Your task to perform on an android device: add a contact Image 0: 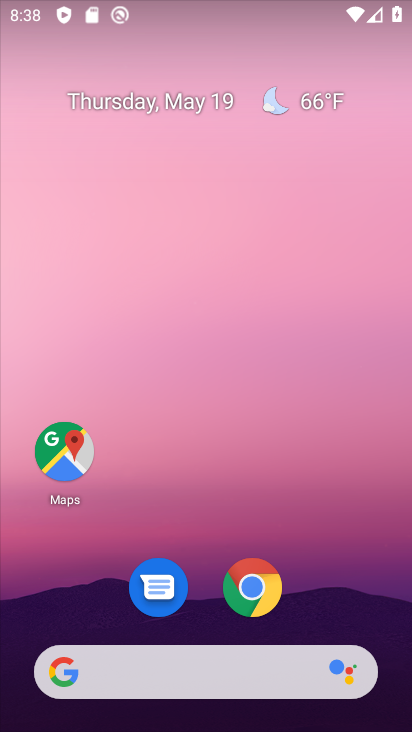
Step 0: drag from (277, 684) to (252, 423)
Your task to perform on an android device: add a contact Image 1: 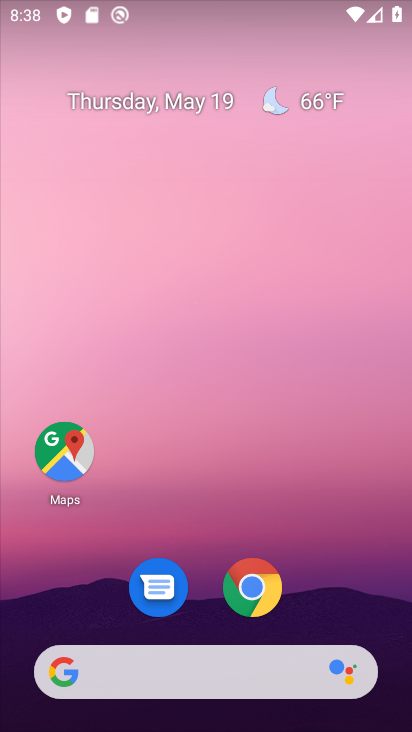
Step 1: drag from (278, 657) to (135, 106)
Your task to perform on an android device: add a contact Image 2: 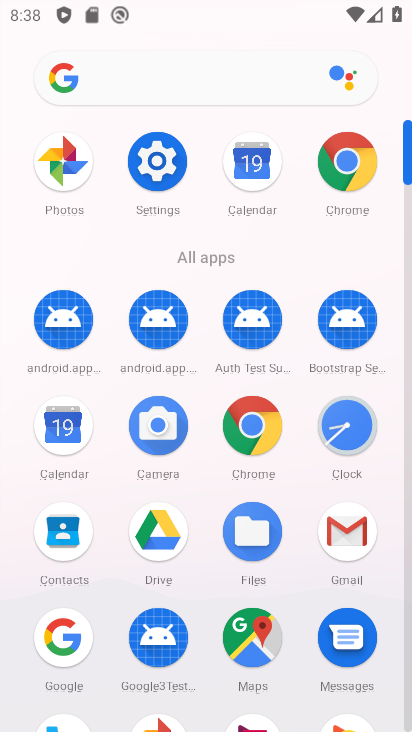
Step 2: click (147, 365)
Your task to perform on an android device: add a contact Image 3: 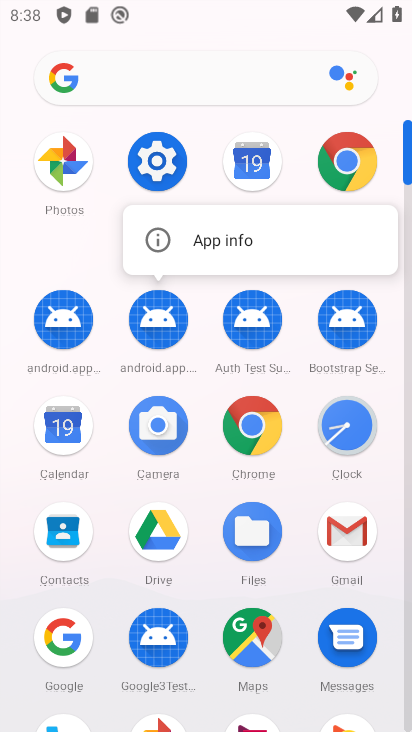
Step 3: click (65, 720)
Your task to perform on an android device: add a contact Image 4: 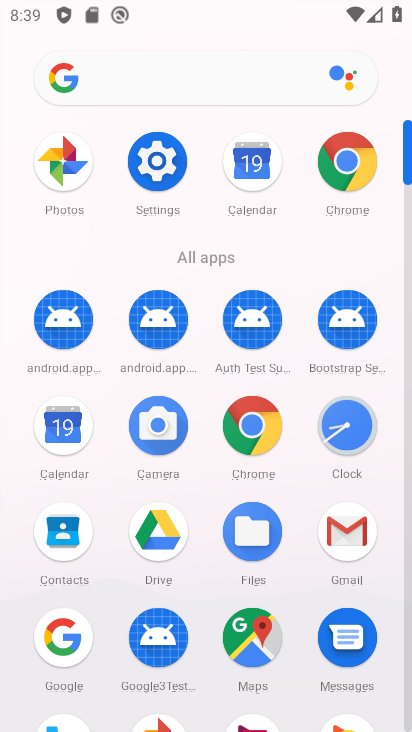
Step 4: drag from (116, 483) to (107, 283)
Your task to perform on an android device: add a contact Image 5: 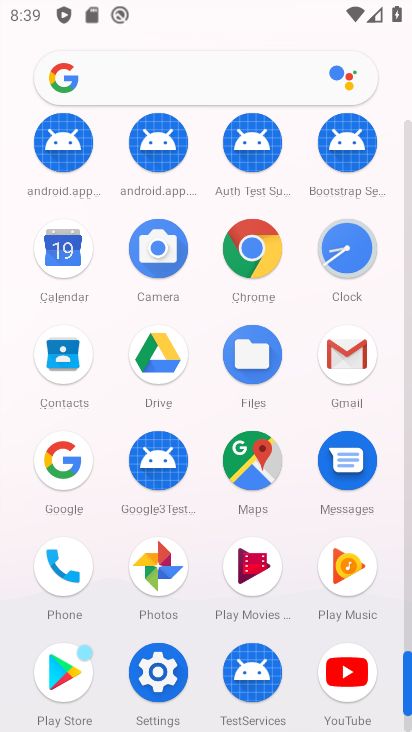
Step 5: click (76, 562)
Your task to perform on an android device: add a contact Image 6: 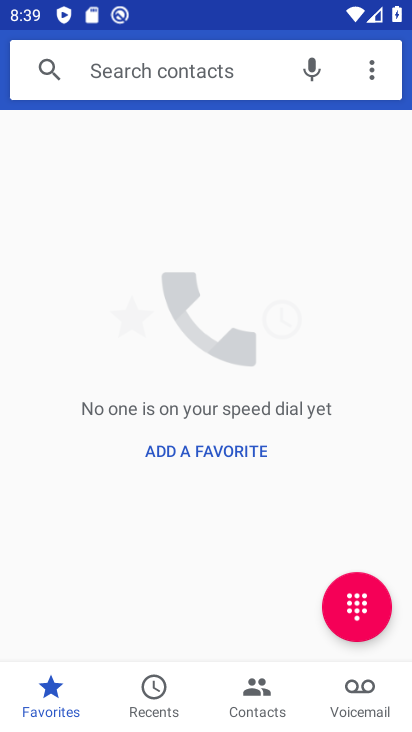
Step 6: click (262, 681)
Your task to perform on an android device: add a contact Image 7: 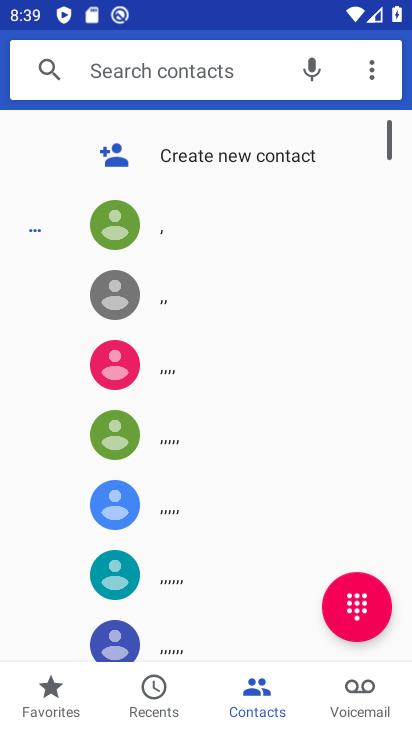
Step 7: click (232, 153)
Your task to perform on an android device: add a contact Image 8: 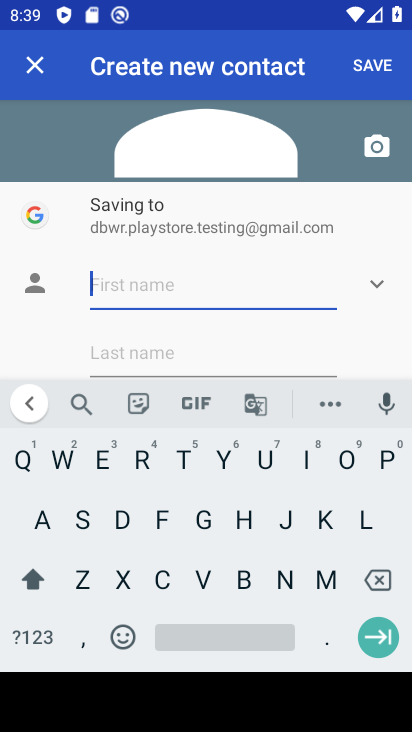
Step 8: click (69, 472)
Your task to perform on an android device: add a contact Image 9: 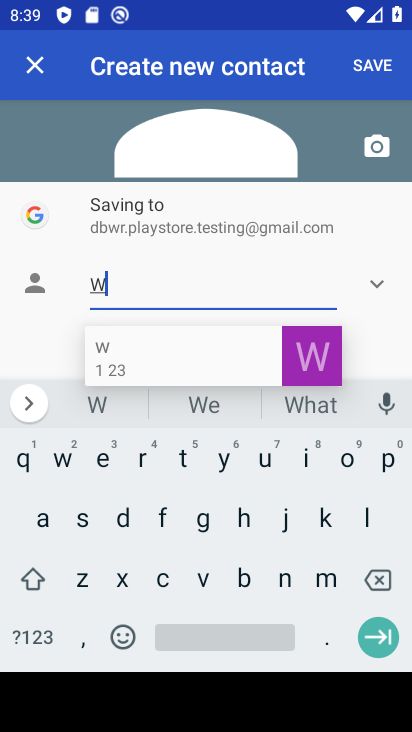
Step 9: click (17, 474)
Your task to perform on an android device: add a contact Image 10: 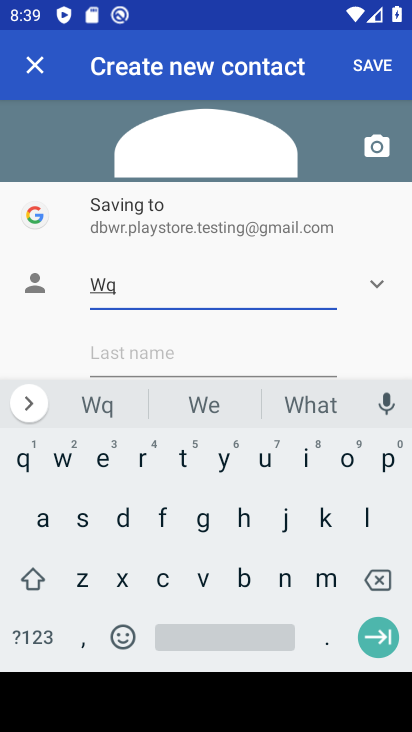
Step 10: drag from (166, 327) to (166, 178)
Your task to perform on an android device: add a contact Image 11: 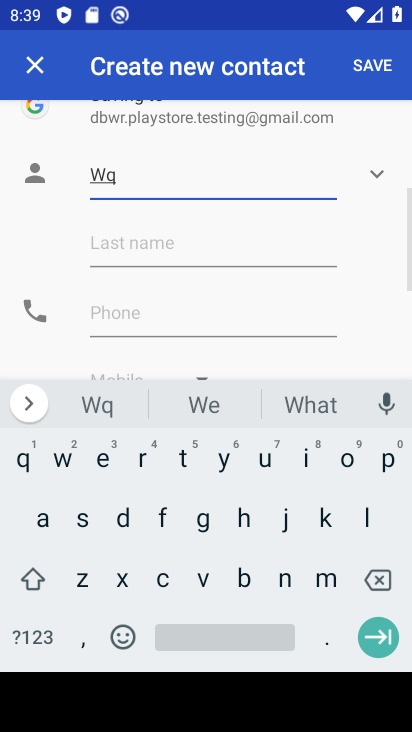
Step 11: click (109, 330)
Your task to perform on an android device: add a contact Image 12: 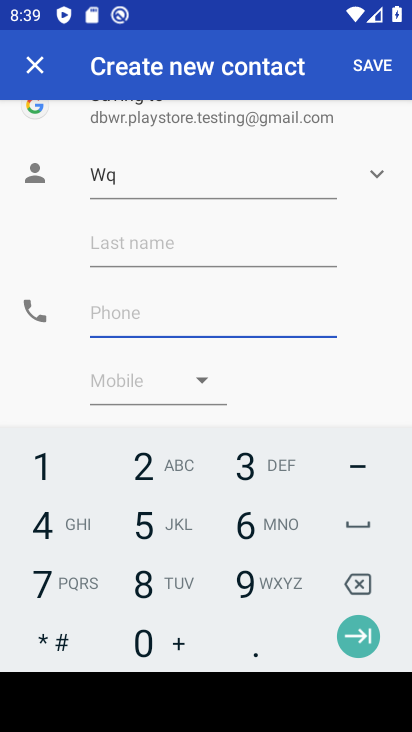
Step 12: click (150, 462)
Your task to perform on an android device: add a contact Image 13: 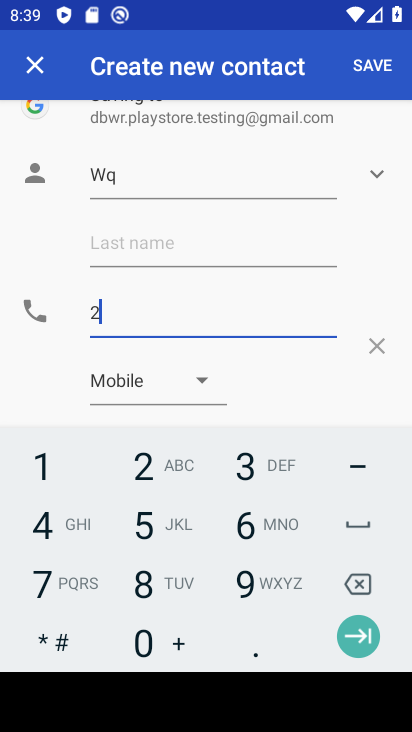
Step 13: click (166, 527)
Your task to perform on an android device: add a contact Image 14: 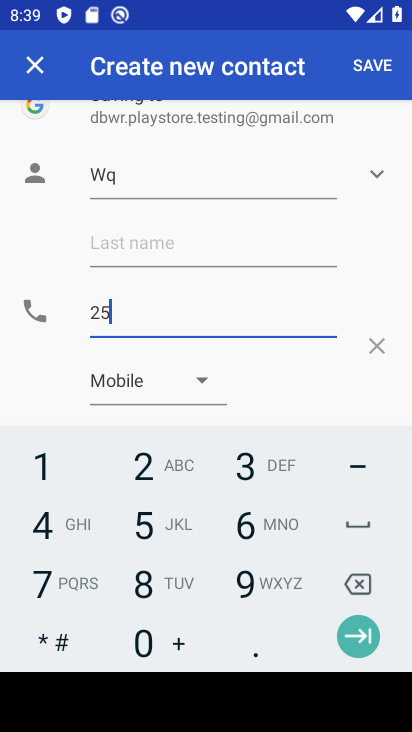
Step 14: click (58, 525)
Your task to perform on an android device: add a contact Image 15: 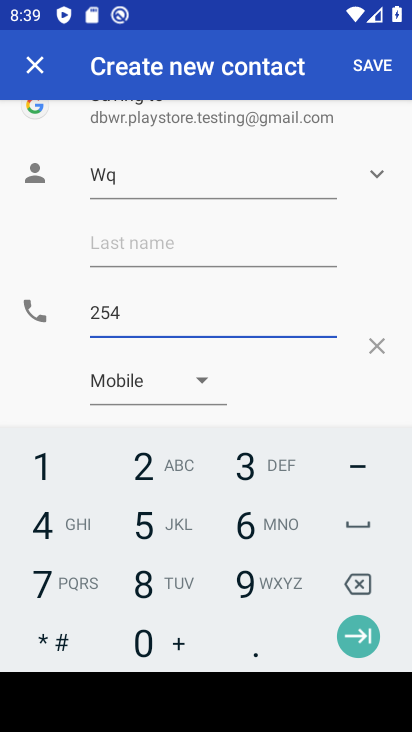
Step 15: click (152, 597)
Your task to perform on an android device: add a contact Image 16: 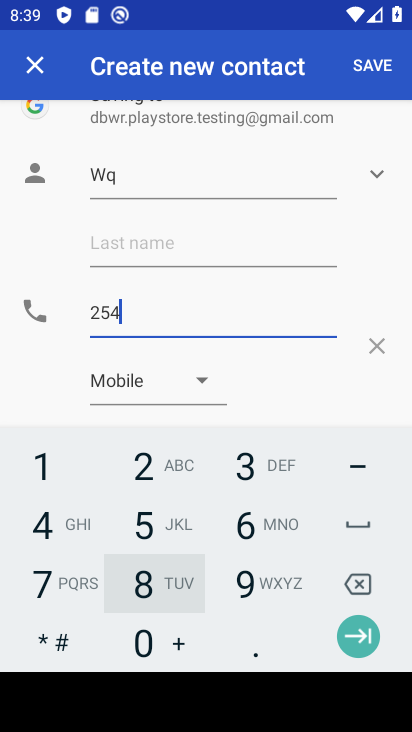
Step 16: click (43, 496)
Your task to perform on an android device: add a contact Image 17: 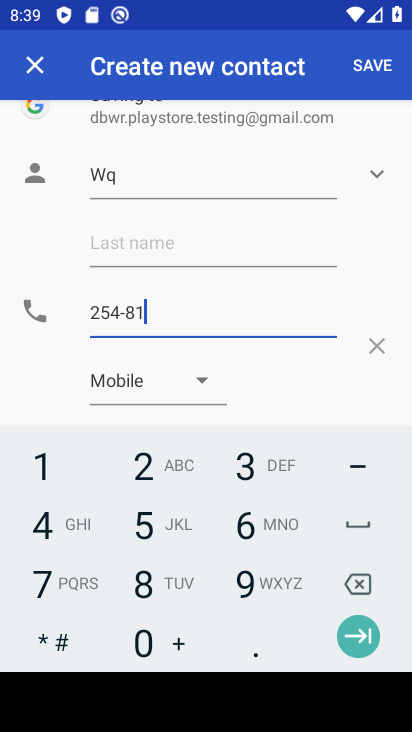
Step 17: click (40, 475)
Your task to perform on an android device: add a contact Image 18: 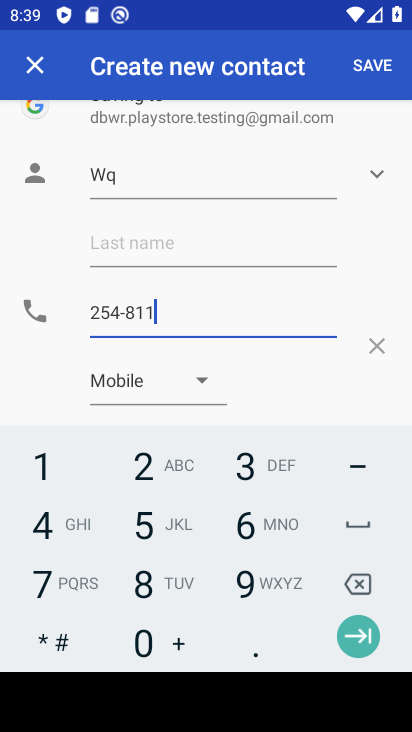
Step 18: click (380, 75)
Your task to perform on an android device: add a contact Image 19: 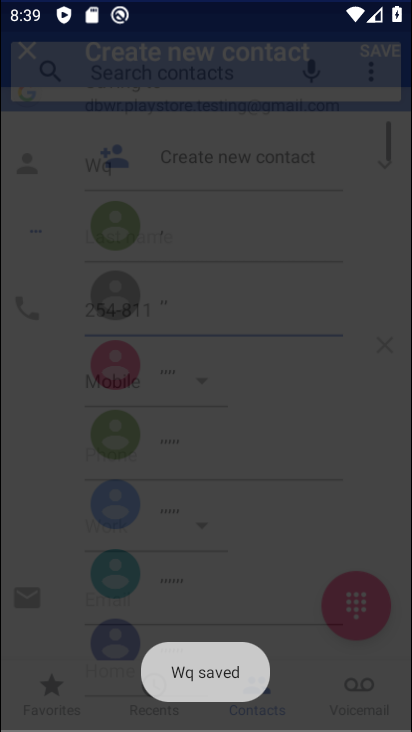
Step 19: click (369, 77)
Your task to perform on an android device: add a contact Image 20: 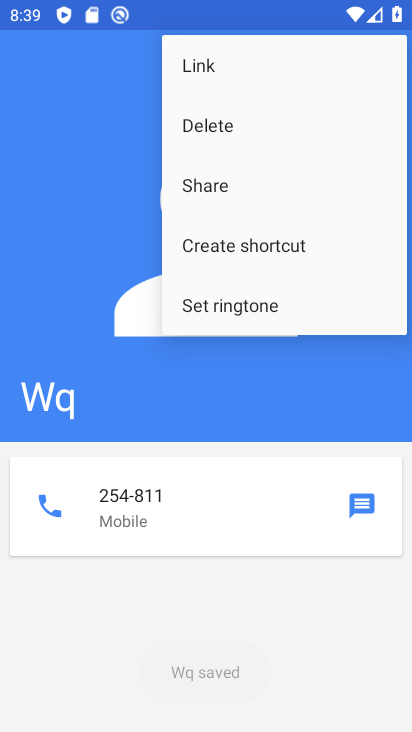
Step 20: task complete